Your task to perform on an android device: See recent photos Image 0: 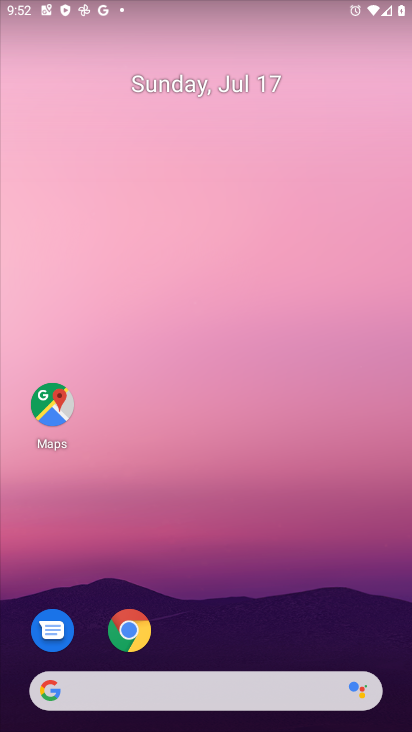
Step 0: drag from (196, 524) to (170, 208)
Your task to perform on an android device: See recent photos Image 1: 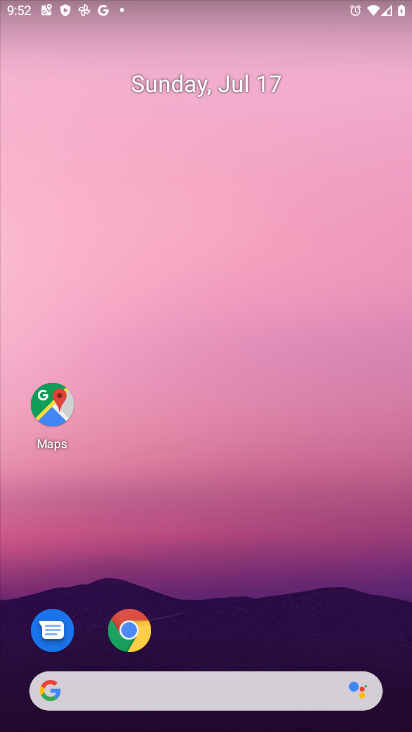
Step 1: drag from (198, 317) to (198, 158)
Your task to perform on an android device: See recent photos Image 2: 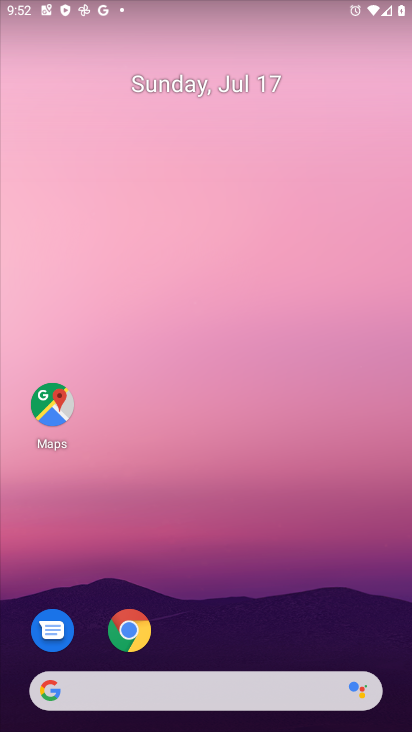
Step 2: drag from (200, 546) to (182, 162)
Your task to perform on an android device: See recent photos Image 3: 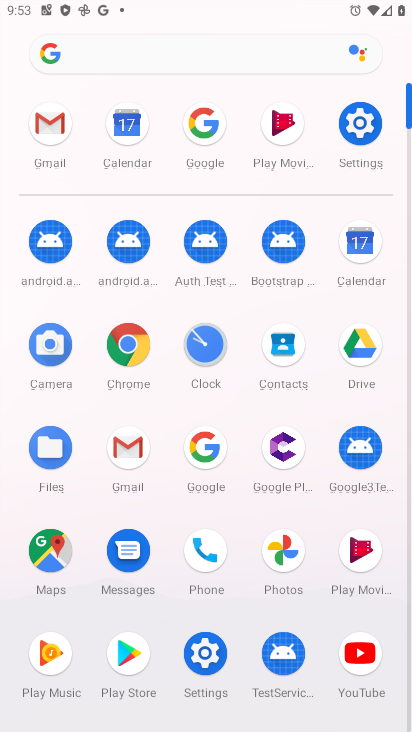
Step 3: click (268, 558)
Your task to perform on an android device: See recent photos Image 4: 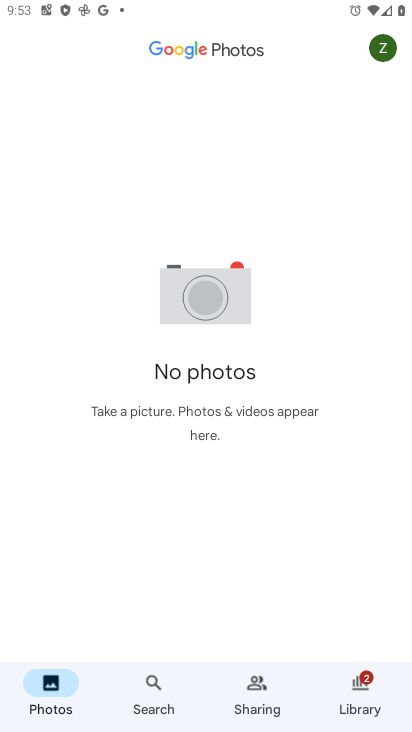
Step 4: click (362, 695)
Your task to perform on an android device: See recent photos Image 5: 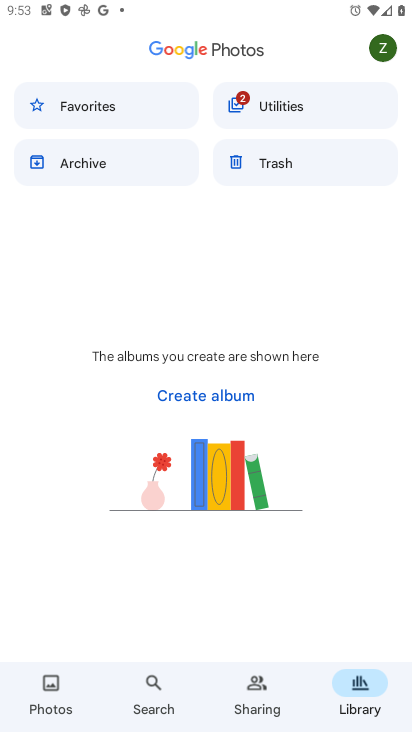
Step 5: task complete